Your task to perform on an android device: Go to location settings Image 0: 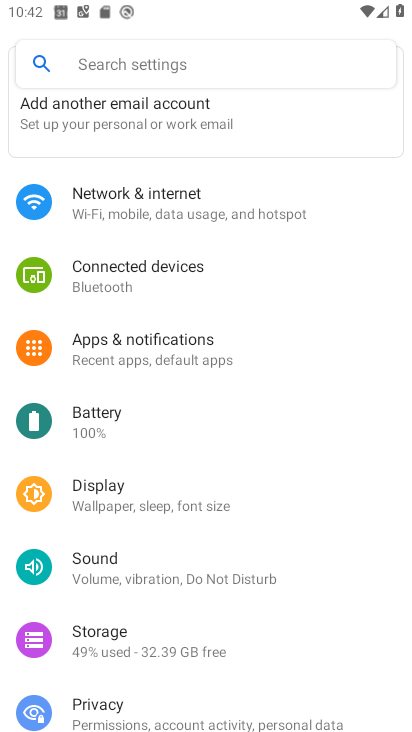
Step 0: press home button
Your task to perform on an android device: Go to location settings Image 1: 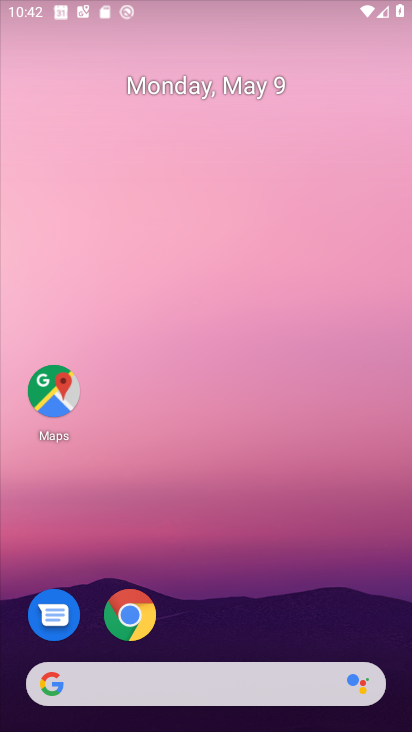
Step 1: drag from (267, 708) to (170, 200)
Your task to perform on an android device: Go to location settings Image 2: 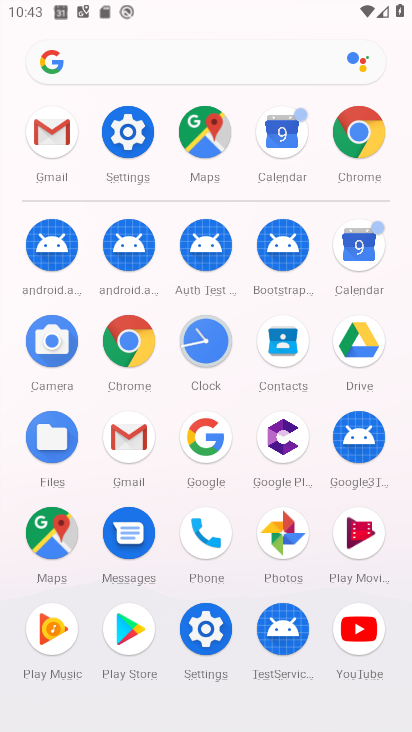
Step 2: click (129, 130)
Your task to perform on an android device: Go to location settings Image 3: 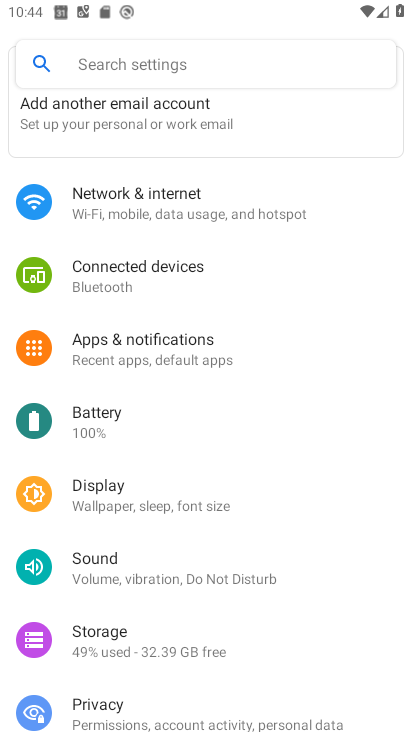
Step 3: click (152, 62)
Your task to perform on an android device: Go to location settings Image 4: 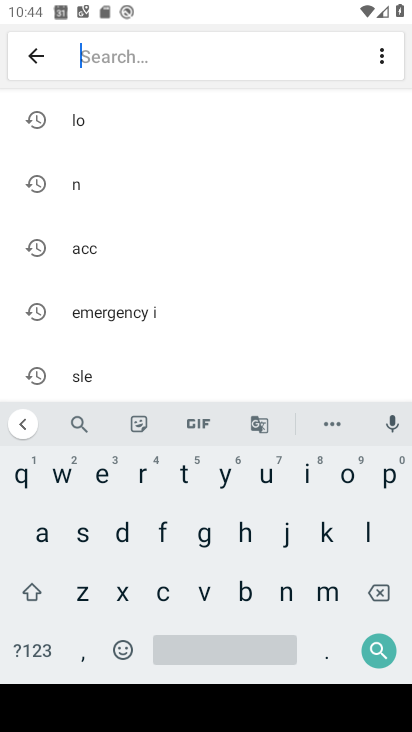
Step 4: click (96, 125)
Your task to perform on an android device: Go to location settings Image 5: 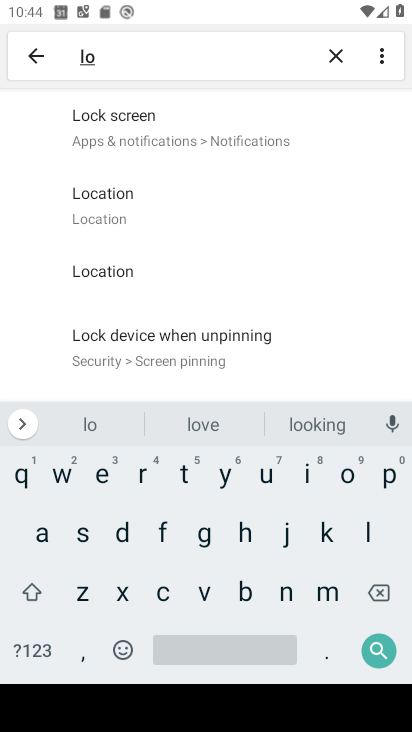
Step 5: click (109, 216)
Your task to perform on an android device: Go to location settings Image 6: 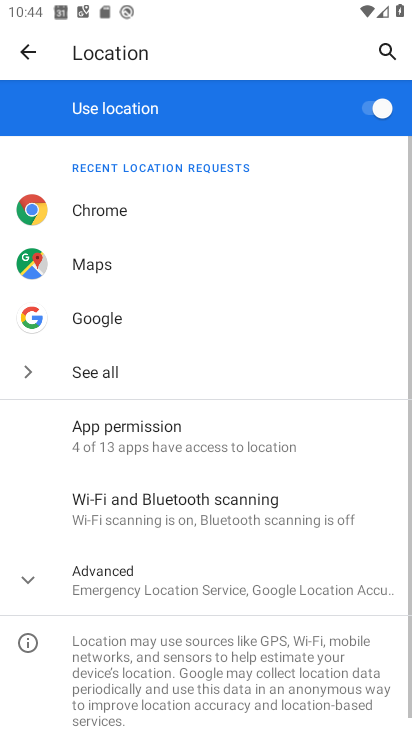
Step 6: task complete